Your task to perform on an android device: find photos in the google photos app Image 0: 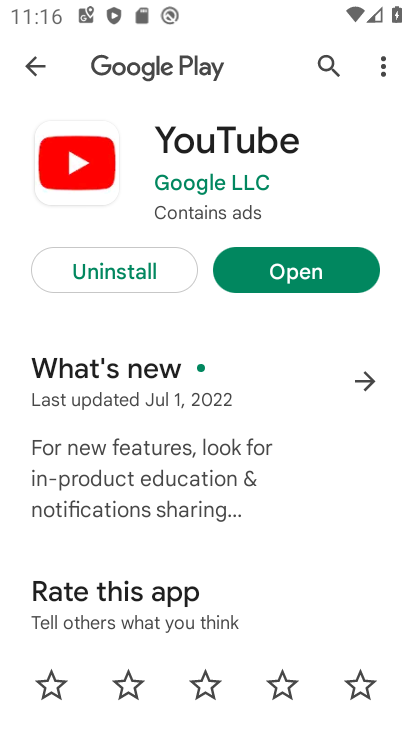
Step 0: press home button
Your task to perform on an android device: find photos in the google photos app Image 1: 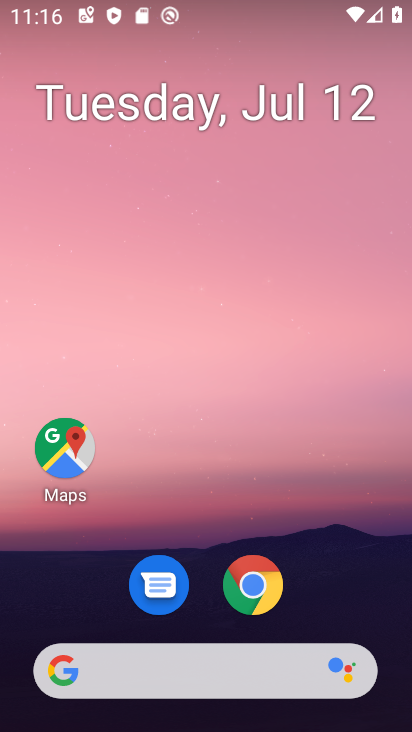
Step 1: drag from (326, 538) to (276, 8)
Your task to perform on an android device: find photos in the google photos app Image 2: 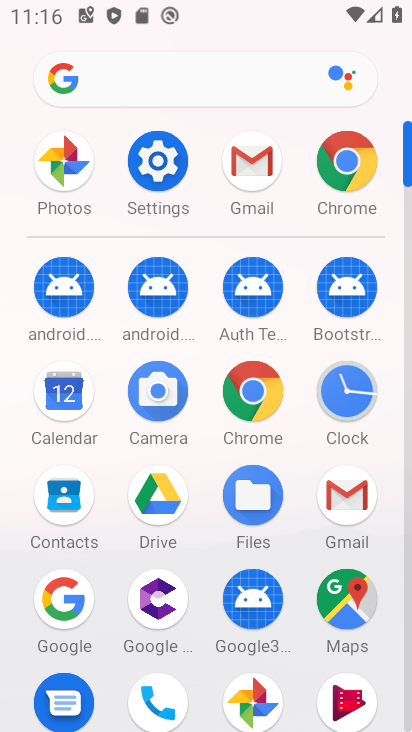
Step 2: click (77, 166)
Your task to perform on an android device: find photos in the google photos app Image 3: 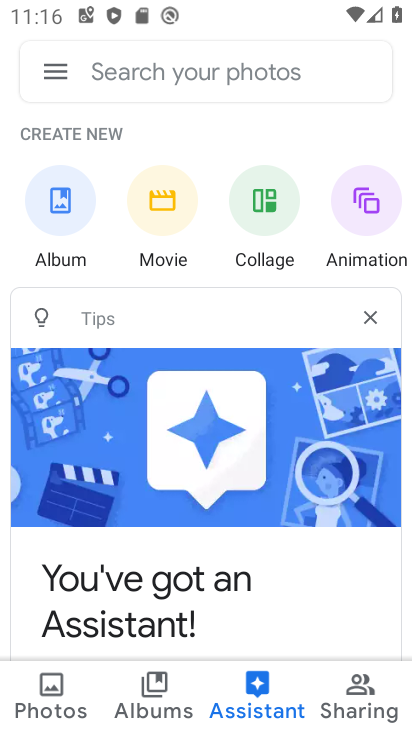
Step 3: click (46, 698)
Your task to perform on an android device: find photos in the google photos app Image 4: 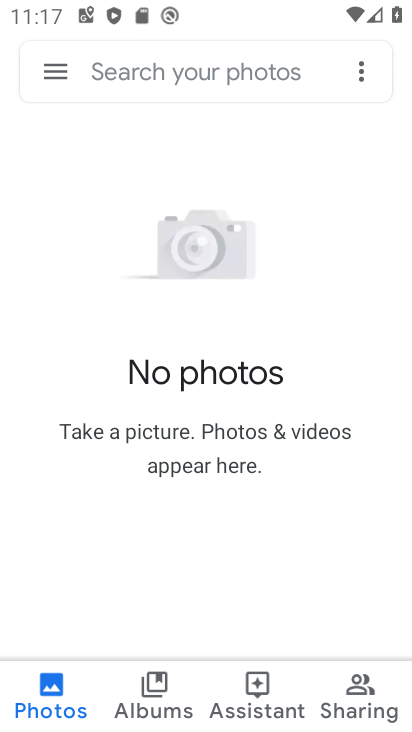
Step 4: task complete